Your task to perform on an android device: check the backup settings in the google photos Image 0: 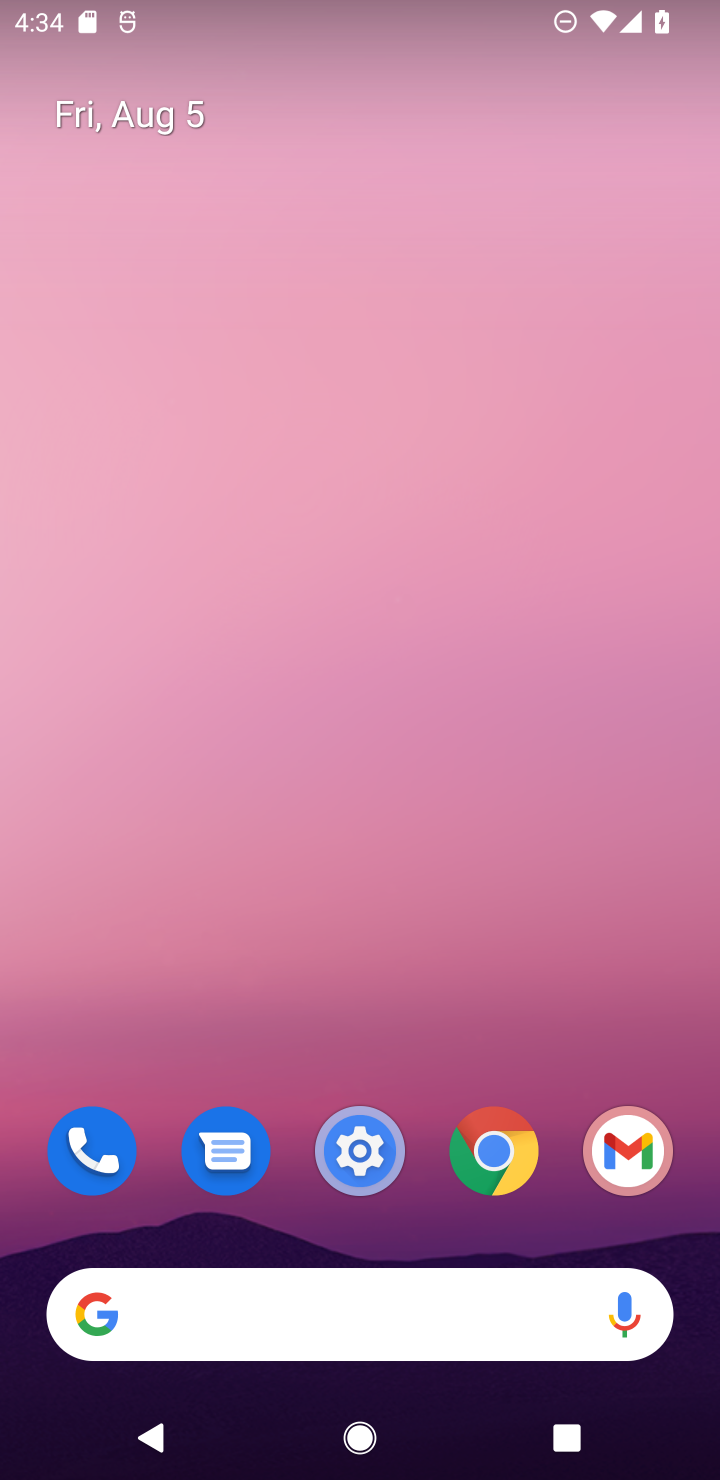
Step 0: click (454, 12)
Your task to perform on an android device: check the backup settings in the google photos Image 1: 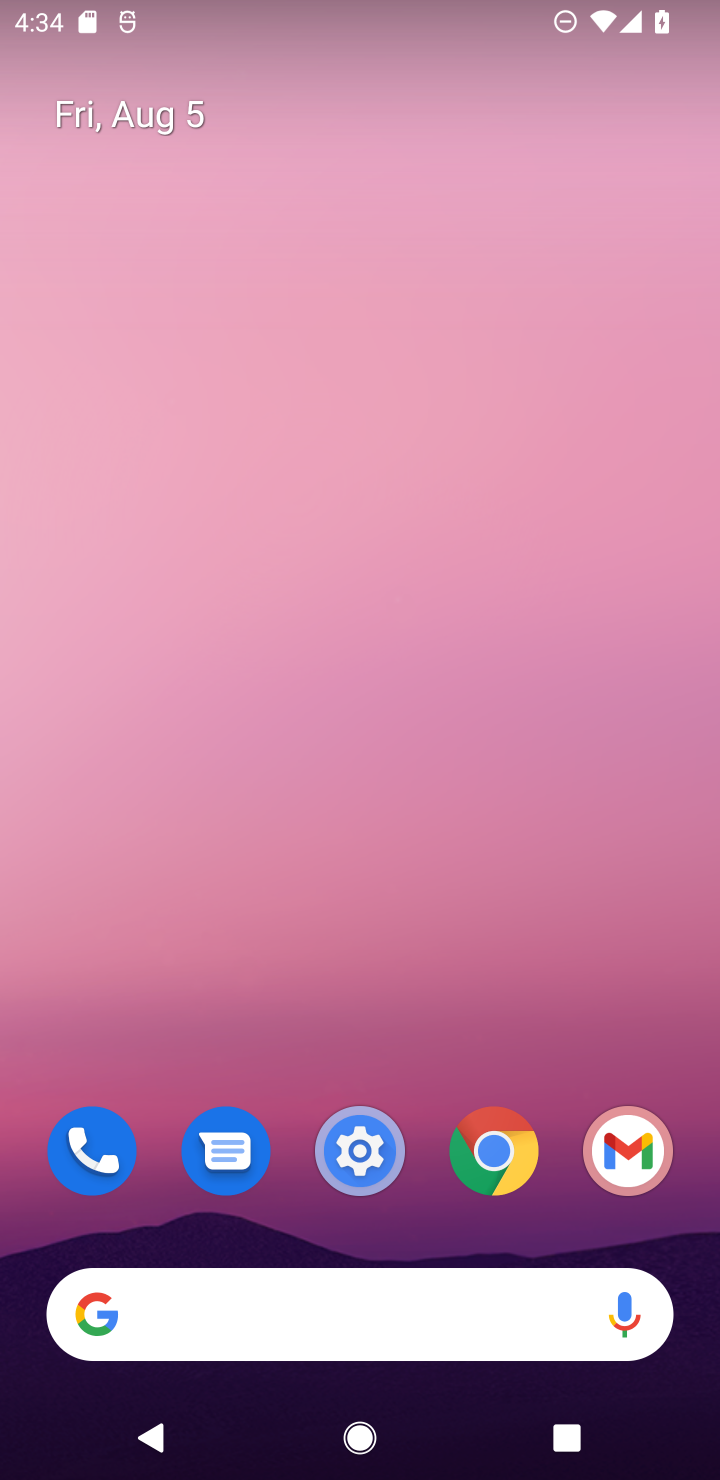
Step 1: drag from (457, 1036) to (312, 248)
Your task to perform on an android device: check the backup settings in the google photos Image 2: 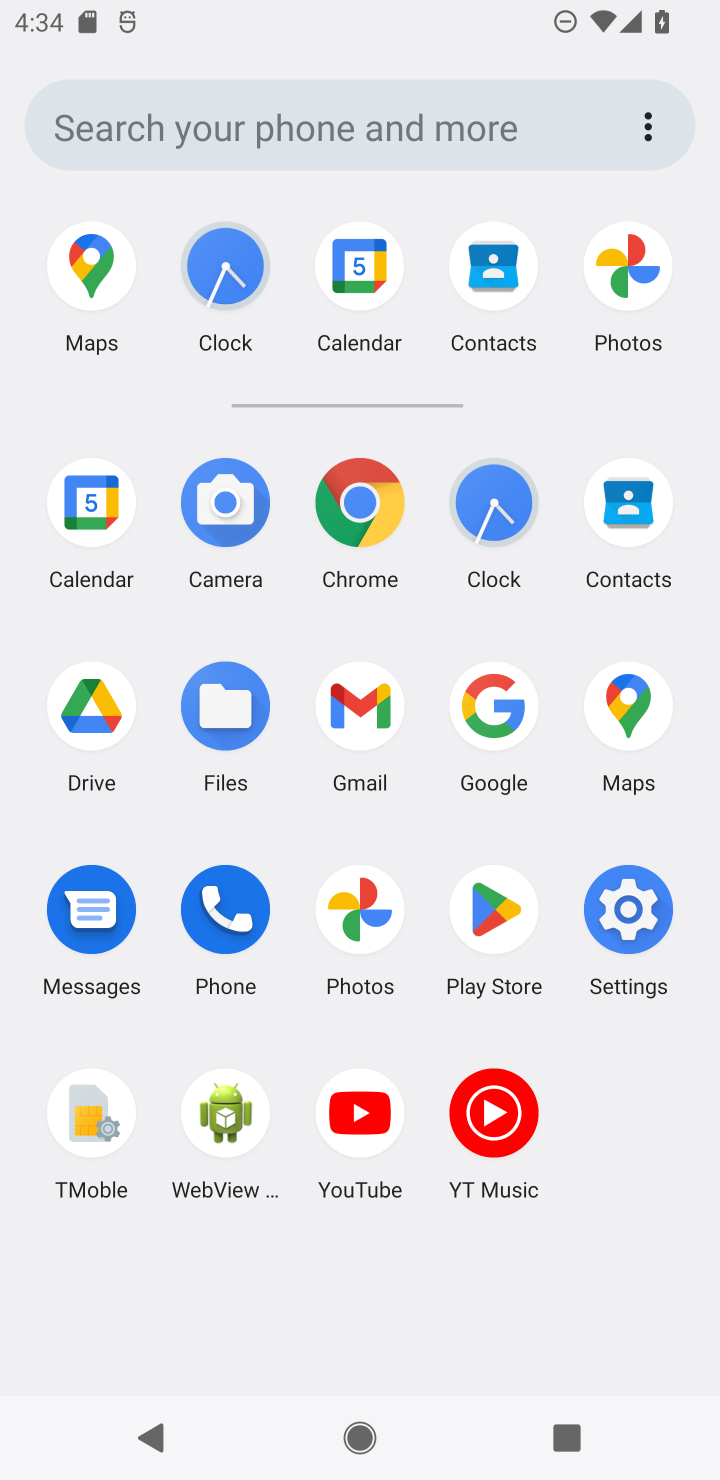
Step 2: click (633, 237)
Your task to perform on an android device: check the backup settings in the google photos Image 3: 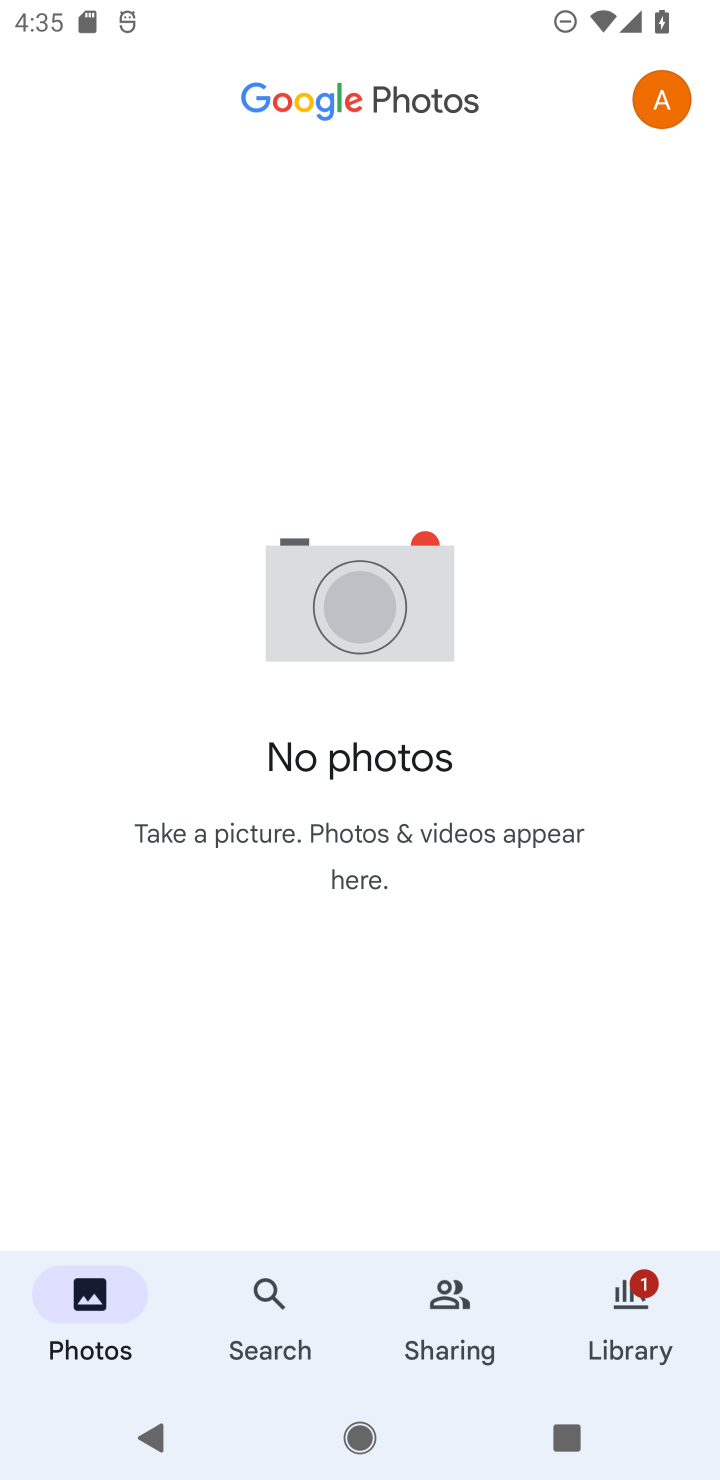
Step 3: click (668, 106)
Your task to perform on an android device: check the backup settings in the google photos Image 4: 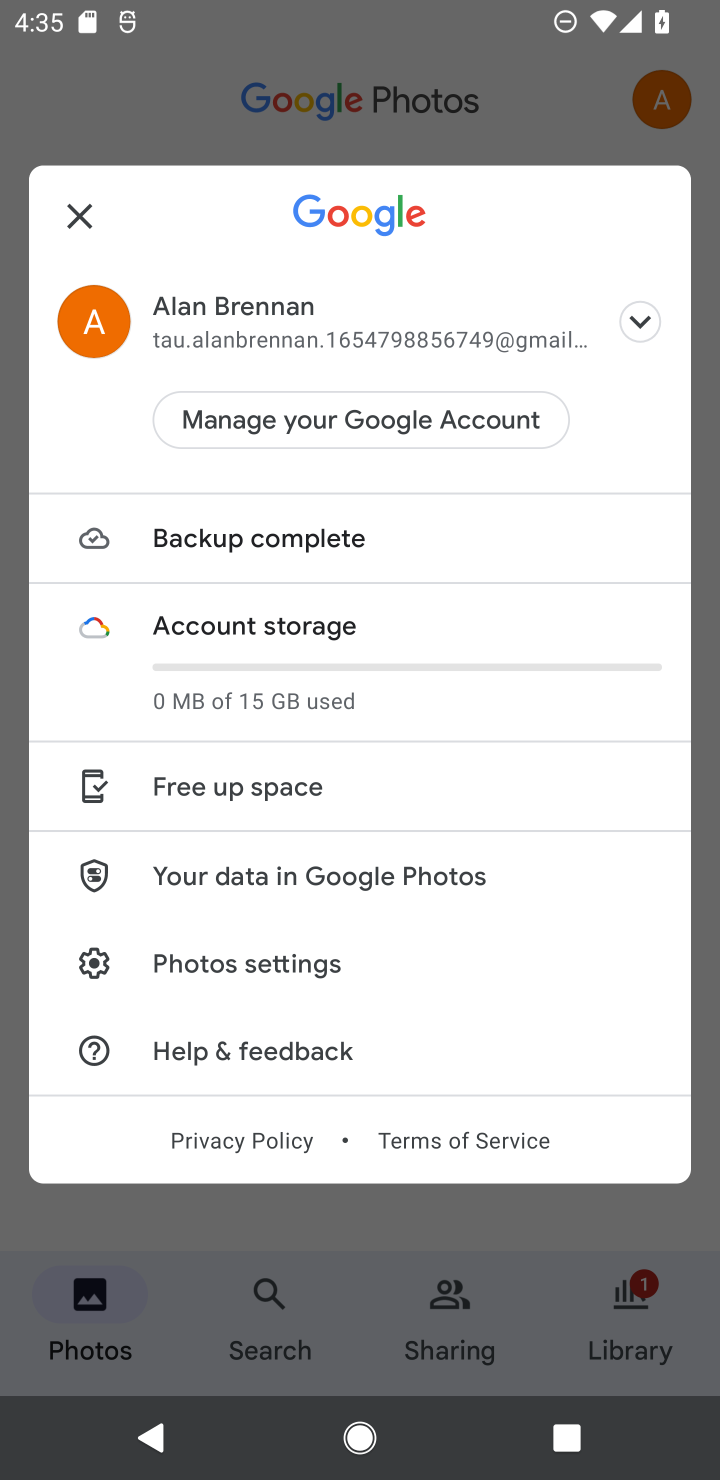
Step 4: click (283, 953)
Your task to perform on an android device: check the backup settings in the google photos Image 5: 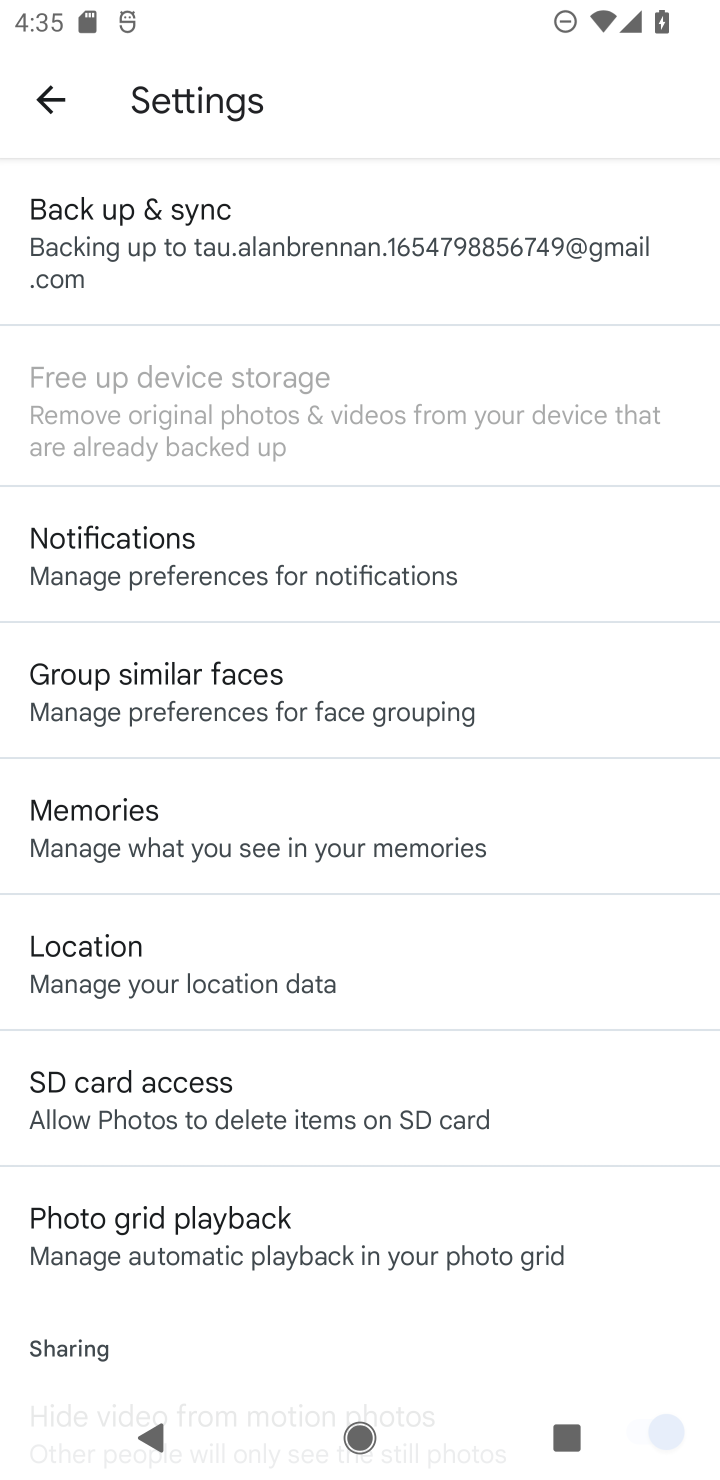
Step 5: click (446, 237)
Your task to perform on an android device: check the backup settings in the google photos Image 6: 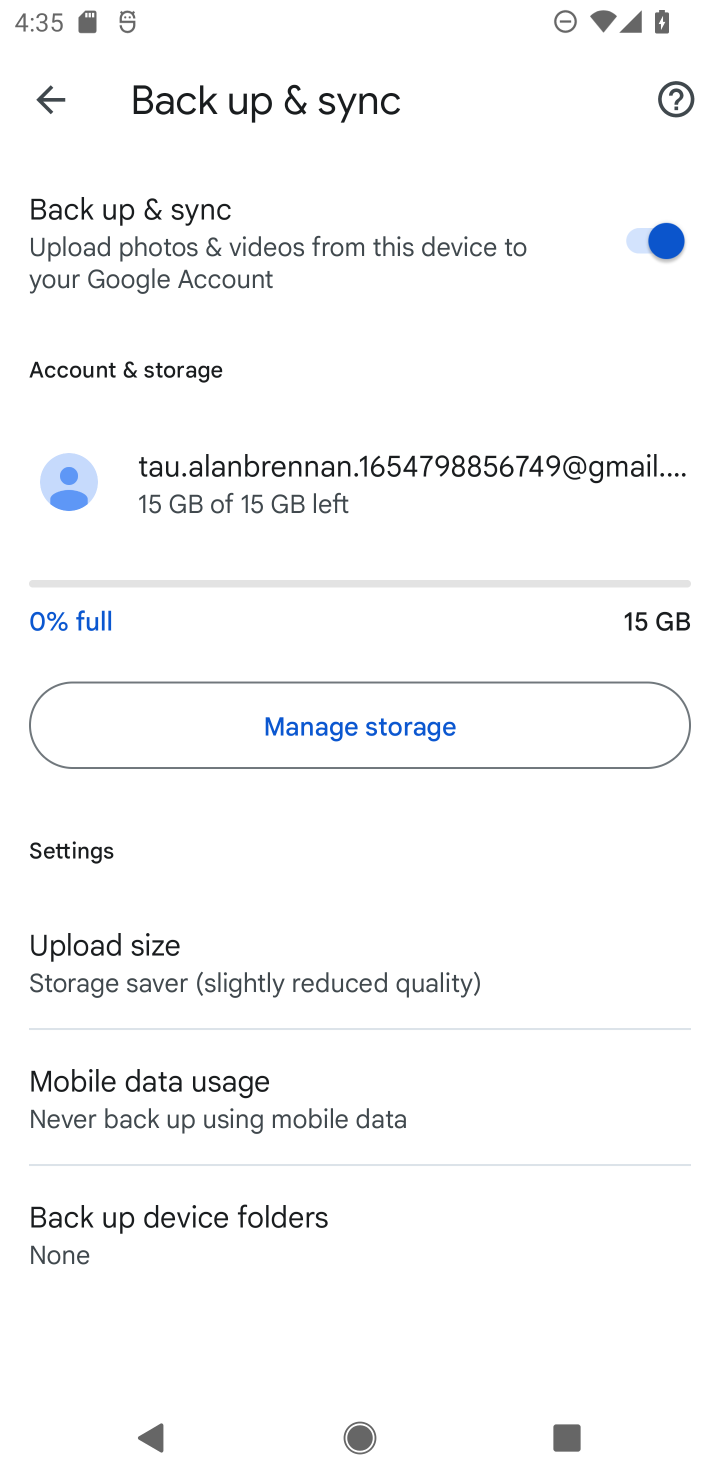
Step 6: task complete